Your task to perform on an android device: open wifi settings Image 0: 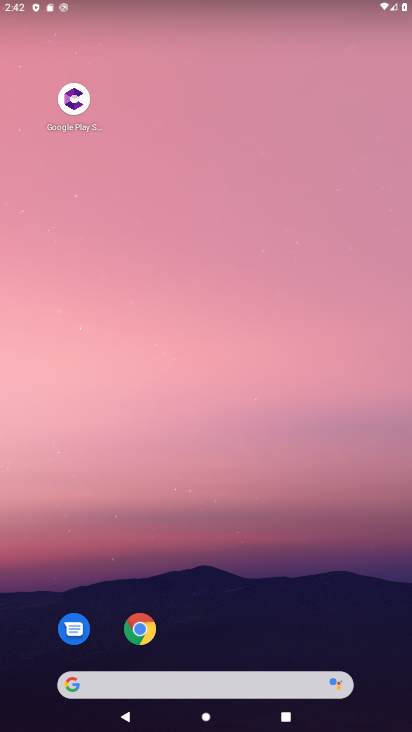
Step 0: drag from (251, 639) to (285, 186)
Your task to perform on an android device: open wifi settings Image 1: 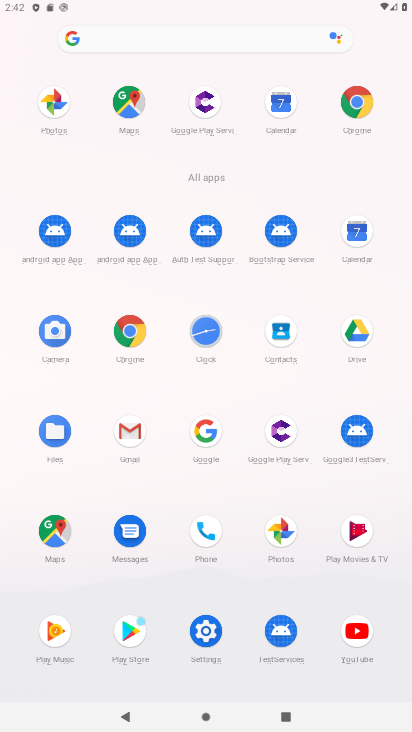
Step 1: click (208, 638)
Your task to perform on an android device: open wifi settings Image 2: 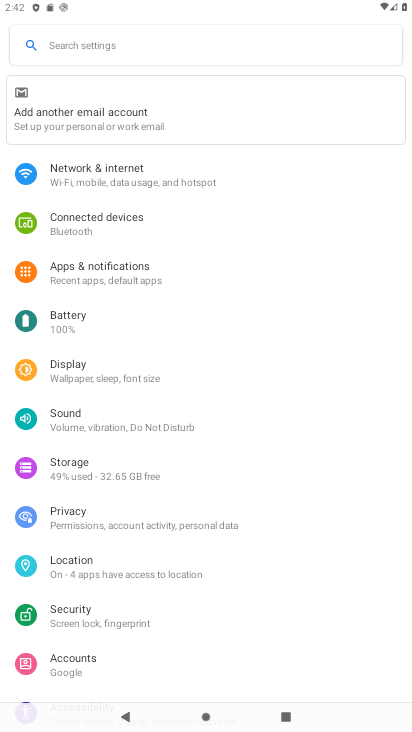
Step 2: click (123, 179)
Your task to perform on an android device: open wifi settings Image 3: 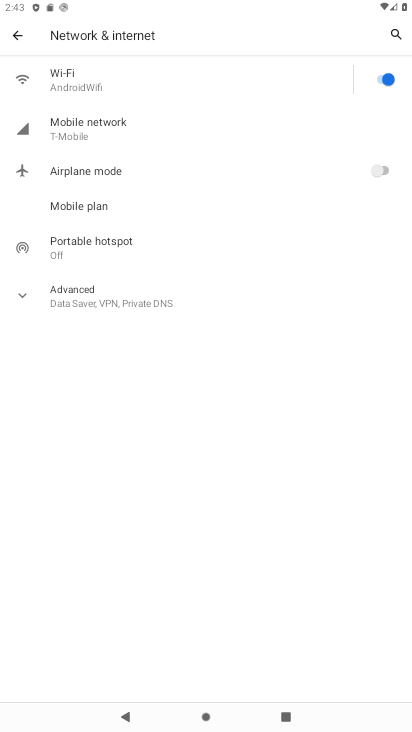
Step 3: task complete